Your task to perform on an android device: Go to Maps Image 0: 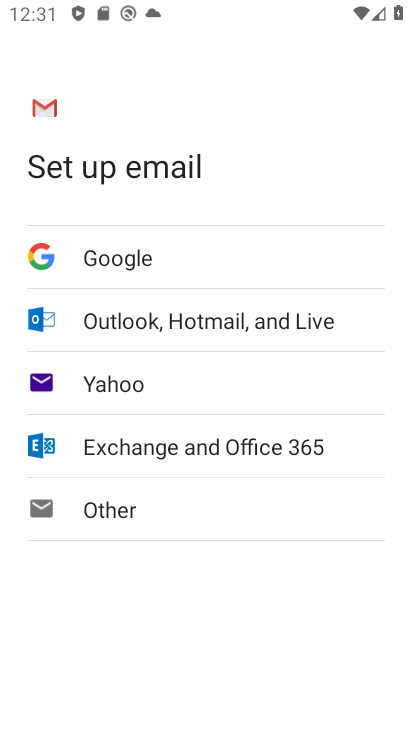
Step 0: press back button
Your task to perform on an android device: Go to Maps Image 1: 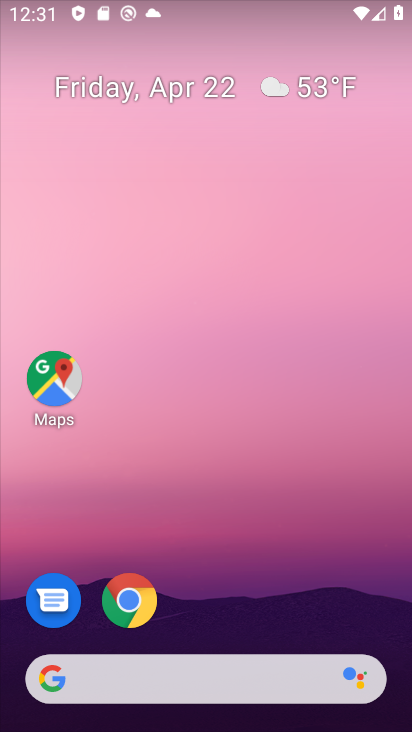
Step 1: click (57, 376)
Your task to perform on an android device: Go to Maps Image 2: 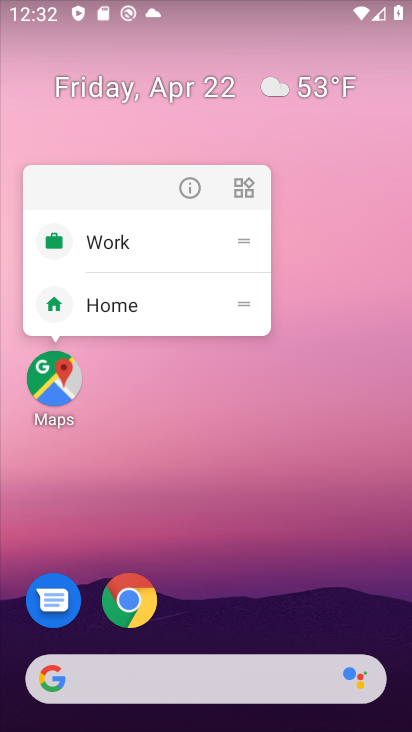
Step 2: click (49, 393)
Your task to perform on an android device: Go to Maps Image 3: 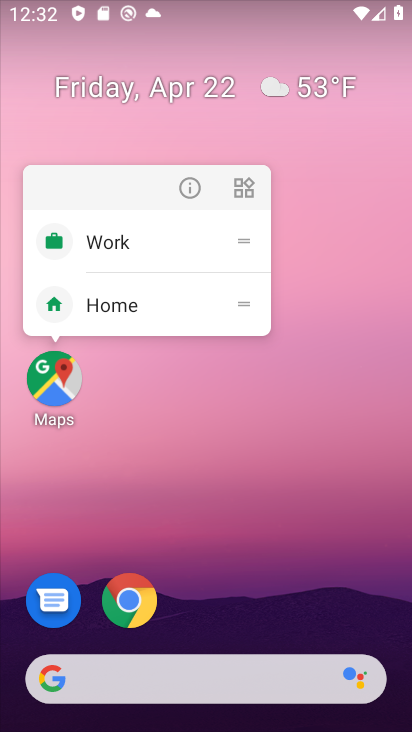
Step 3: click (49, 398)
Your task to perform on an android device: Go to Maps Image 4: 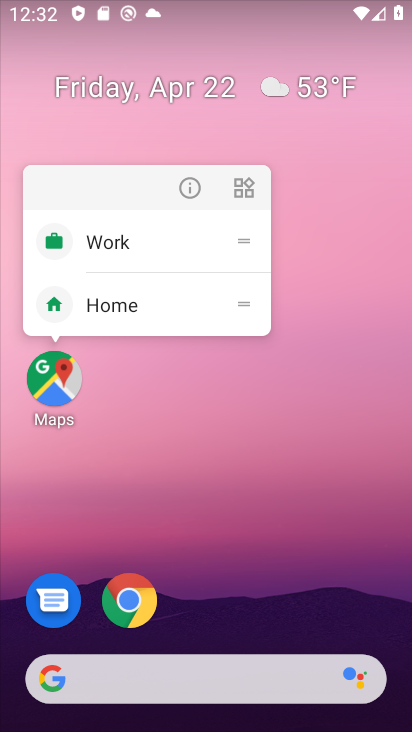
Step 4: click (55, 398)
Your task to perform on an android device: Go to Maps Image 5: 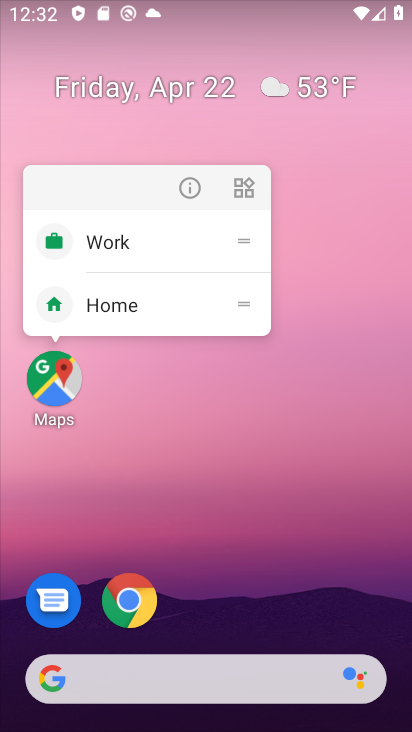
Step 5: click (33, 401)
Your task to perform on an android device: Go to Maps Image 6: 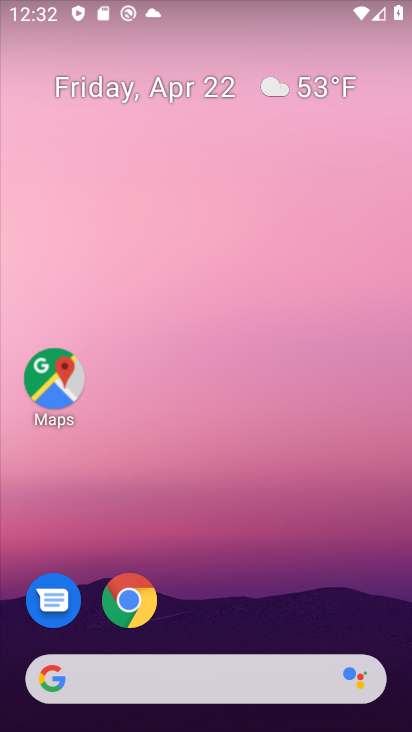
Step 6: task complete